Your task to perform on an android device: turn off priority inbox in the gmail app Image 0: 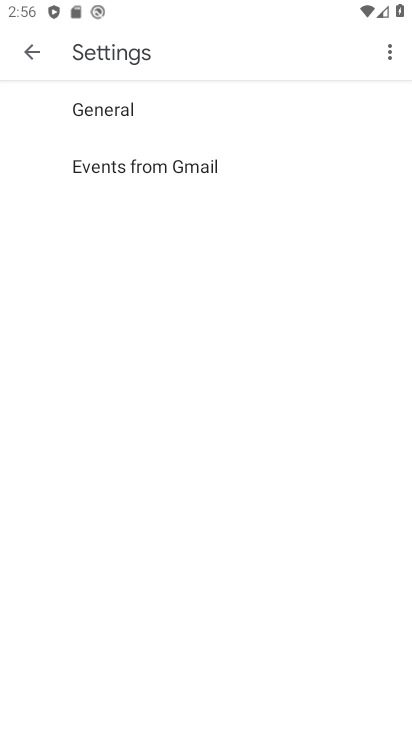
Step 0: press home button
Your task to perform on an android device: turn off priority inbox in the gmail app Image 1: 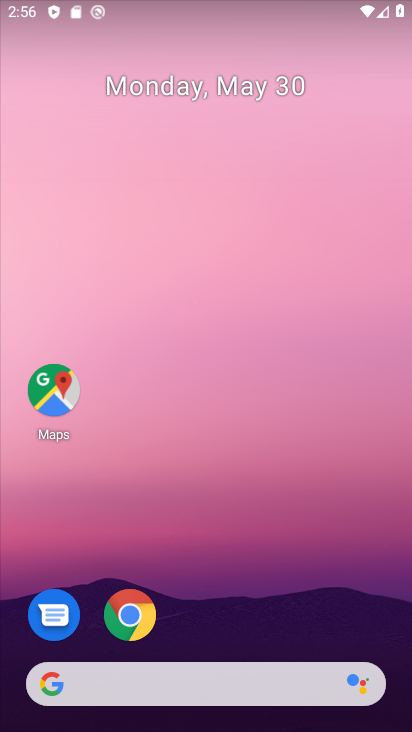
Step 1: drag from (284, 309) to (287, 254)
Your task to perform on an android device: turn off priority inbox in the gmail app Image 2: 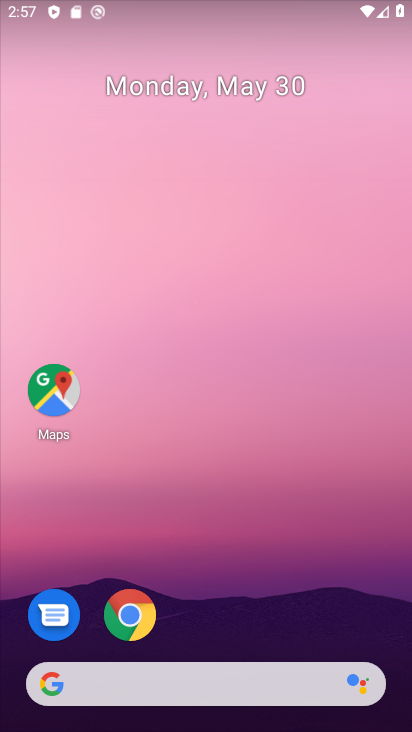
Step 2: drag from (211, 580) to (332, 8)
Your task to perform on an android device: turn off priority inbox in the gmail app Image 3: 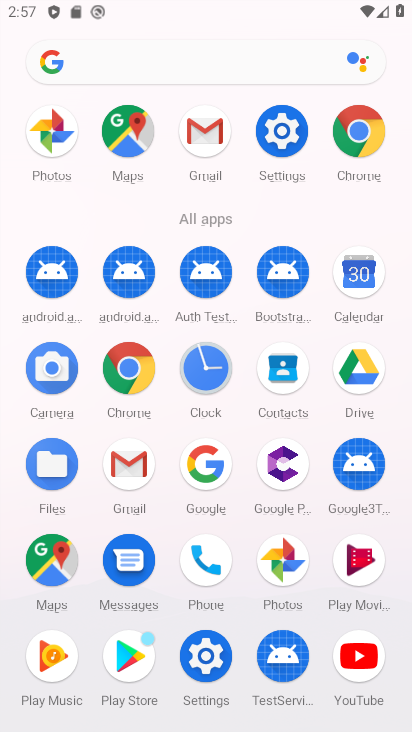
Step 3: click (130, 462)
Your task to perform on an android device: turn off priority inbox in the gmail app Image 4: 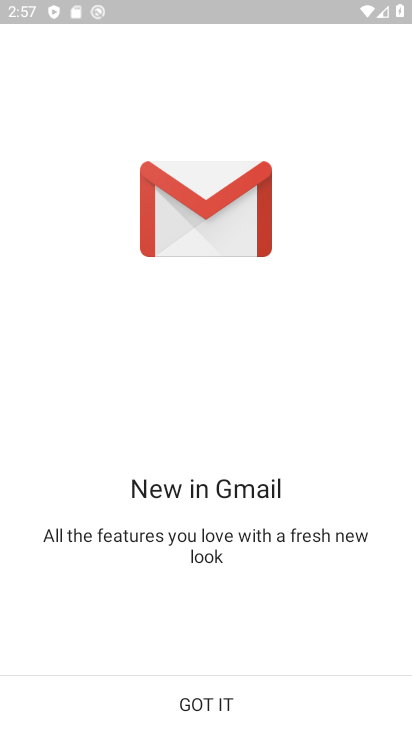
Step 4: click (196, 706)
Your task to perform on an android device: turn off priority inbox in the gmail app Image 5: 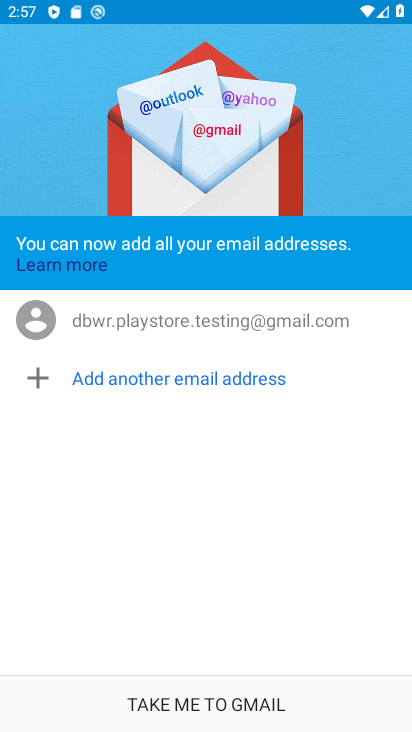
Step 5: click (196, 706)
Your task to perform on an android device: turn off priority inbox in the gmail app Image 6: 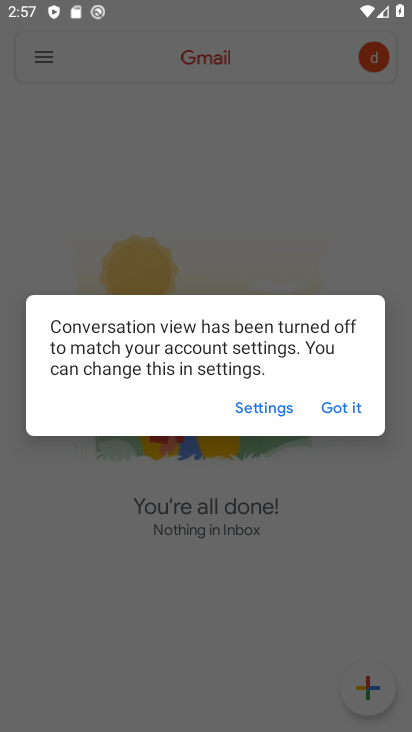
Step 6: click (345, 399)
Your task to perform on an android device: turn off priority inbox in the gmail app Image 7: 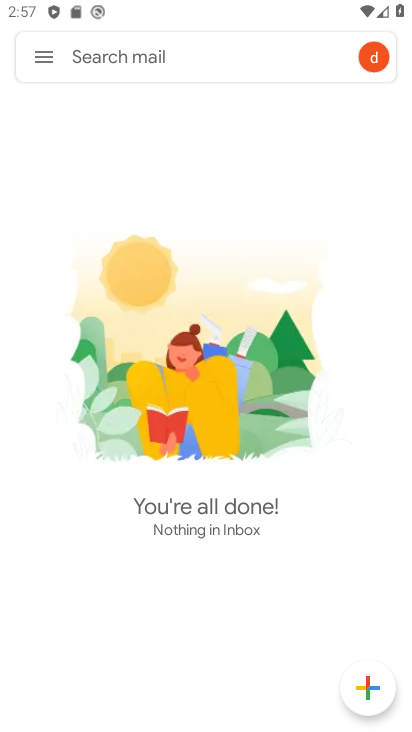
Step 7: click (44, 58)
Your task to perform on an android device: turn off priority inbox in the gmail app Image 8: 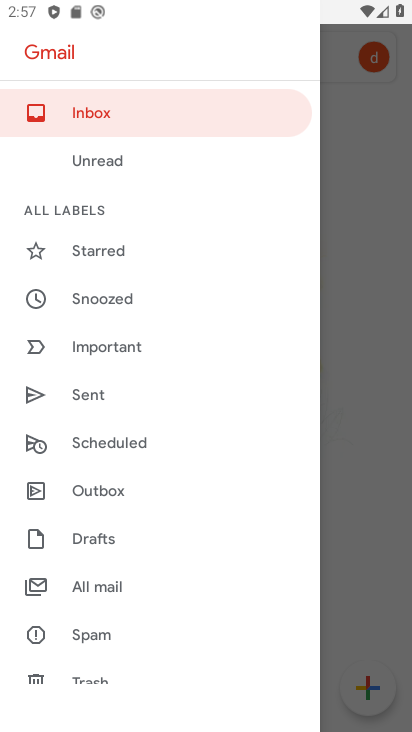
Step 8: drag from (157, 551) to (173, 297)
Your task to perform on an android device: turn off priority inbox in the gmail app Image 9: 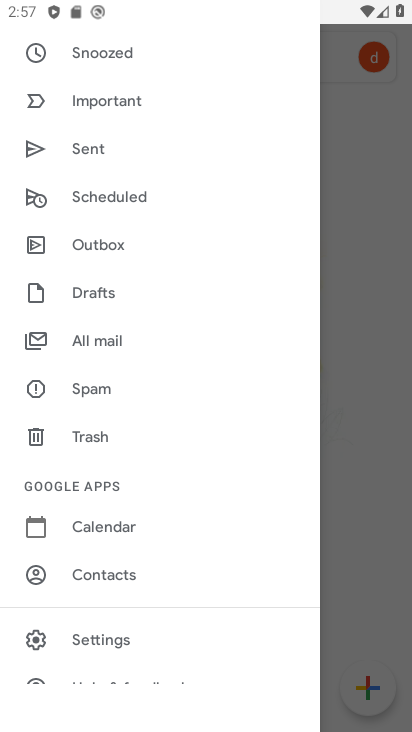
Step 9: click (127, 622)
Your task to perform on an android device: turn off priority inbox in the gmail app Image 10: 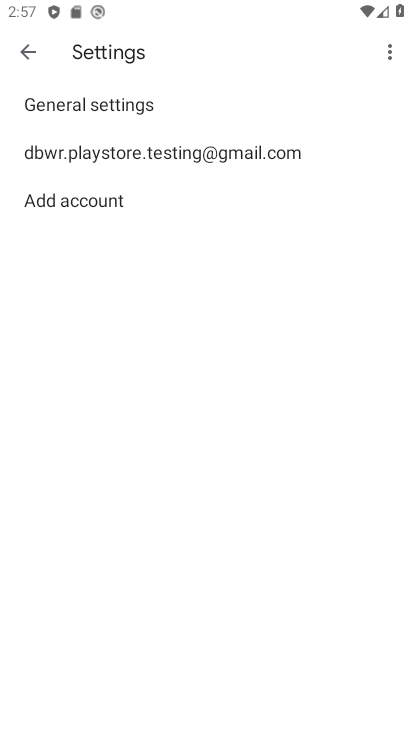
Step 10: click (127, 152)
Your task to perform on an android device: turn off priority inbox in the gmail app Image 11: 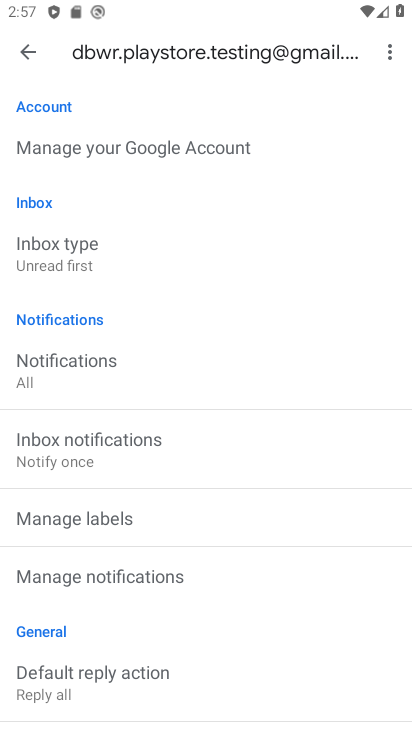
Step 11: click (140, 231)
Your task to perform on an android device: turn off priority inbox in the gmail app Image 12: 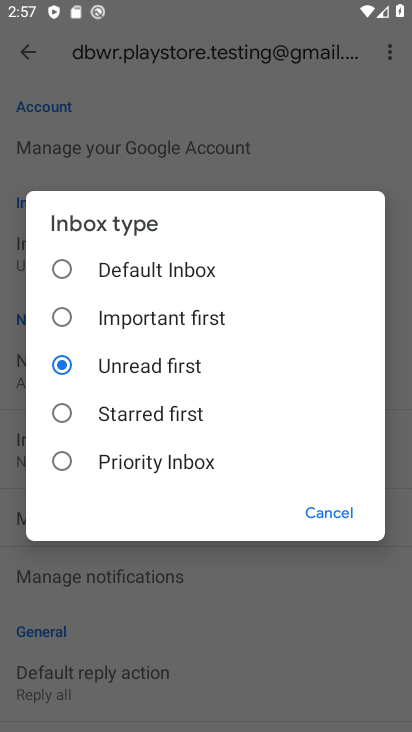
Step 12: task complete